Your task to perform on an android device: Search for sushi restaurants on Maps Image 0: 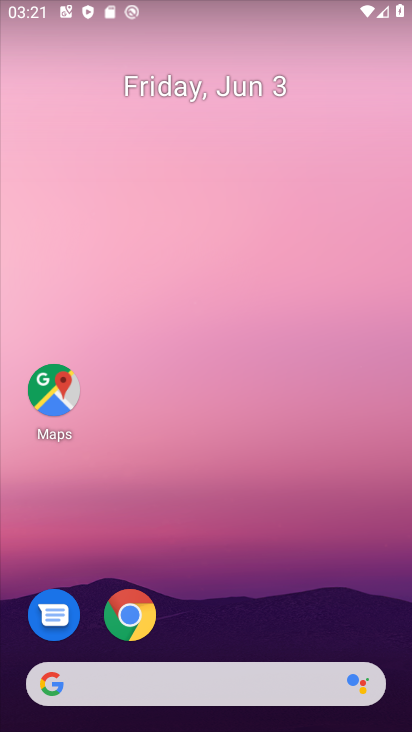
Step 0: click (49, 409)
Your task to perform on an android device: Search for sushi restaurants on Maps Image 1: 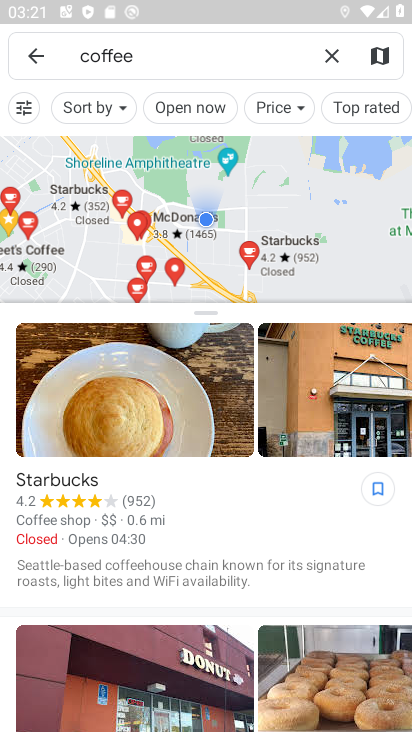
Step 1: click (324, 56)
Your task to perform on an android device: Search for sushi restaurants on Maps Image 2: 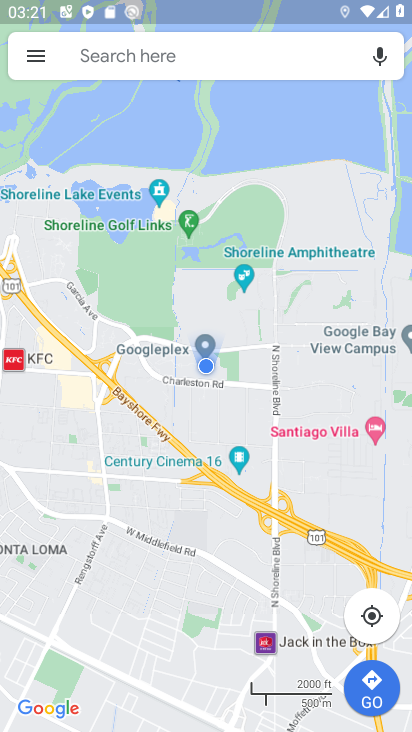
Step 2: click (216, 58)
Your task to perform on an android device: Search for sushi restaurants on Maps Image 3: 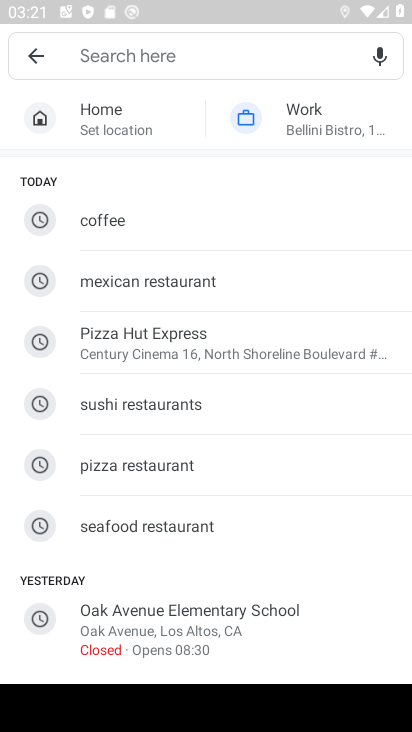
Step 3: click (270, 414)
Your task to perform on an android device: Search for sushi restaurants on Maps Image 4: 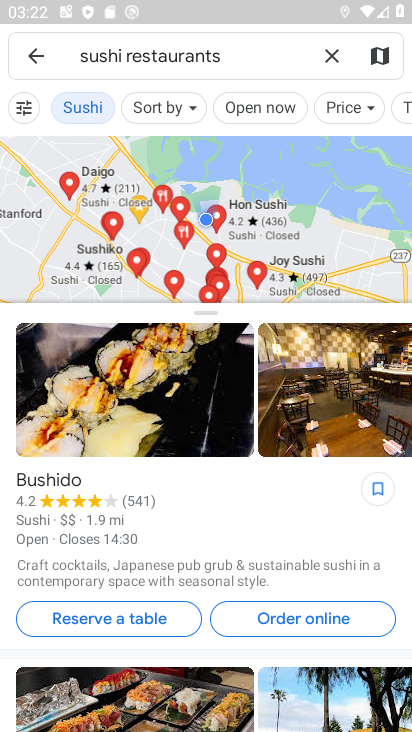
Step 4: task complete